Your task to perform on an android device: When is my next appointment? Image 0: 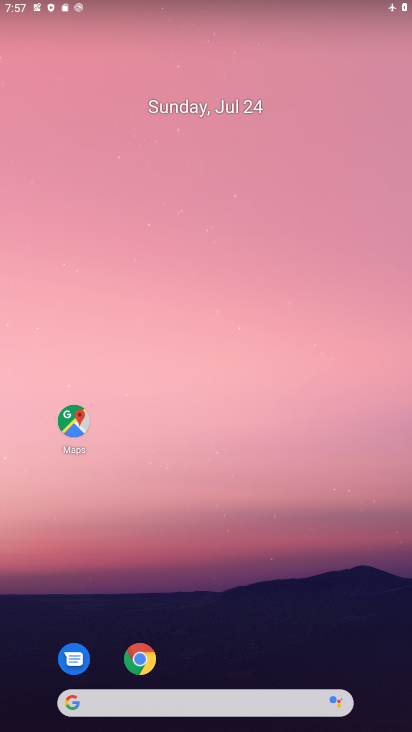
Step 0: drag from (212, 730) to (205, 282)
Your task to perform on an android device: When is my next appointment? Image 1: 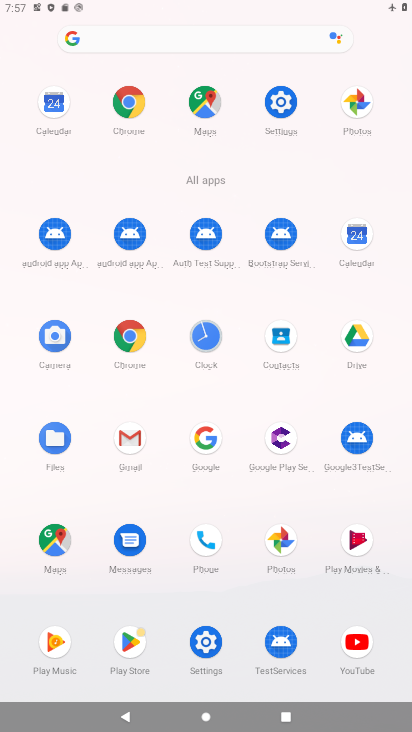
Step 1: click (352, 235)
Your task to perform on an android device: When is my next appointment? Image 2: 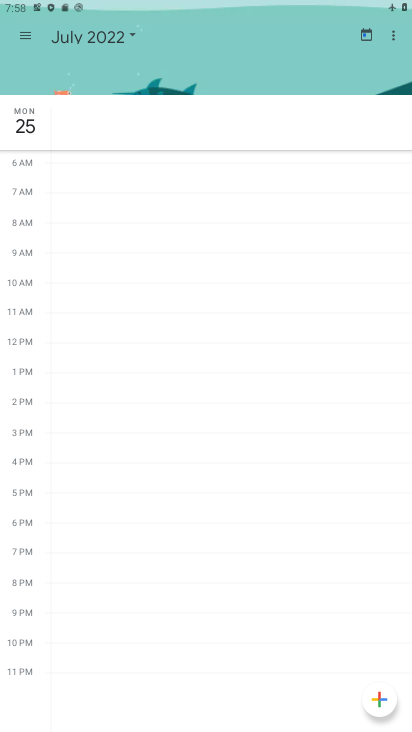
Step 2: click (133, 35)
Your task to perform on an android device: When is my next appointment? Image 3: 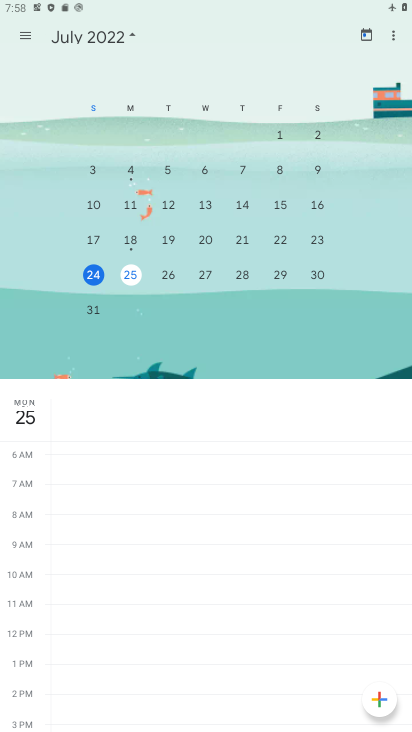
Step 3: click (134, 275)
Your task to perform on an android device: When is my next appointment? Image 4: 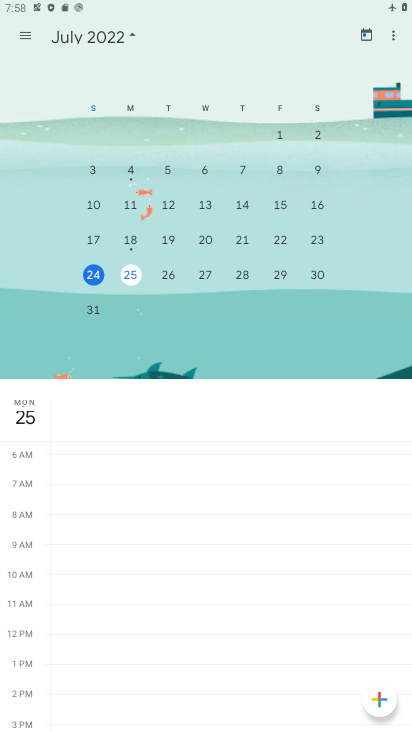
Step 4: task complete